Your task to perform on an android device: Do I have any events tomorrow? Image 0: 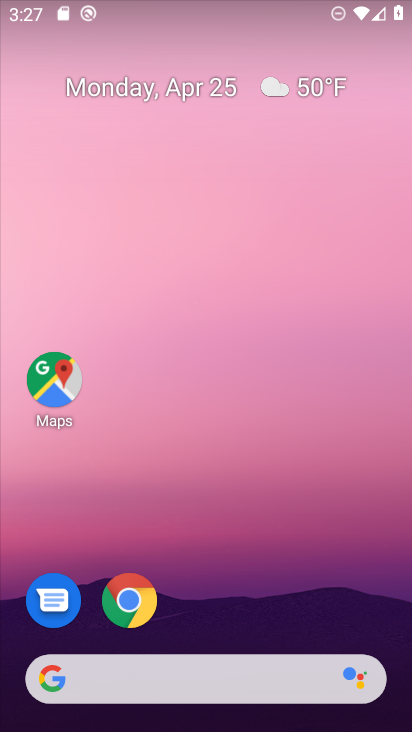
Step 0: drag from (226, 635) to (109, 21)
Your task to perform on an android device: Do I have any events tomorrow? Image 1: 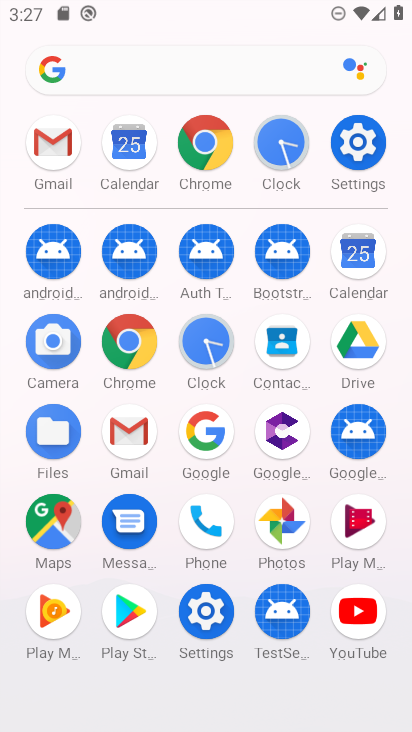
Step 1: click (373, 266)
Your task to perform on an android device: Do I have any events tomorrow? Image 2: 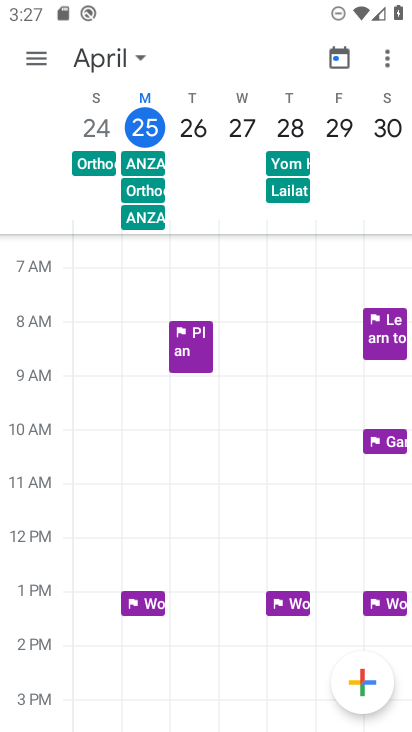
Step 2: click (178, 132)
Your task to perform on an android device: Do I have any events tomorrow? Image 3: 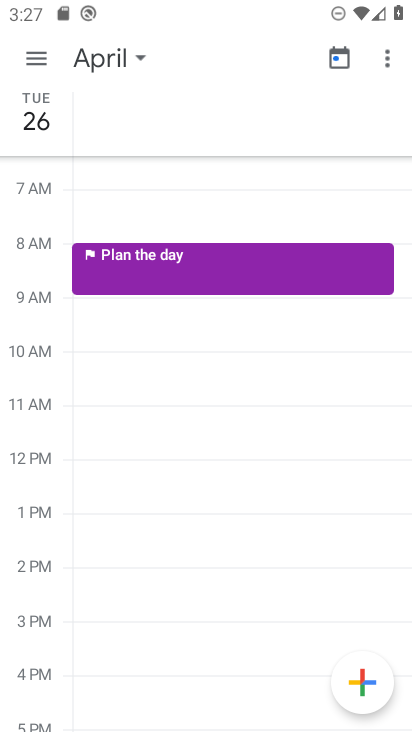
Step 3: task complete